Your task to perform on an android device: see creations saved in the google photos Image 0: 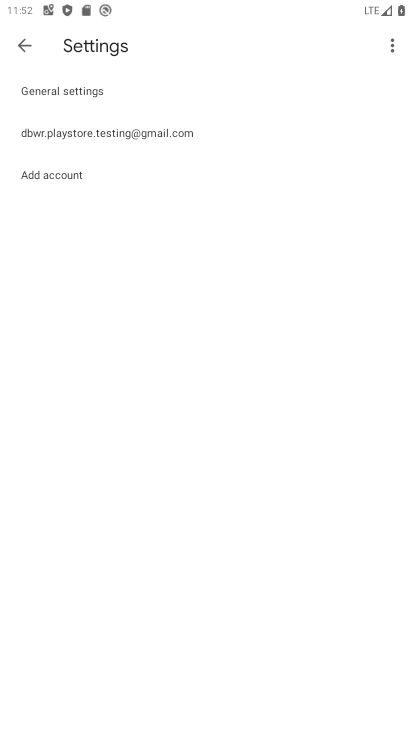
Step 0: press home button
Your task to perform on an android device: see creations saved in the google photos Image 1: 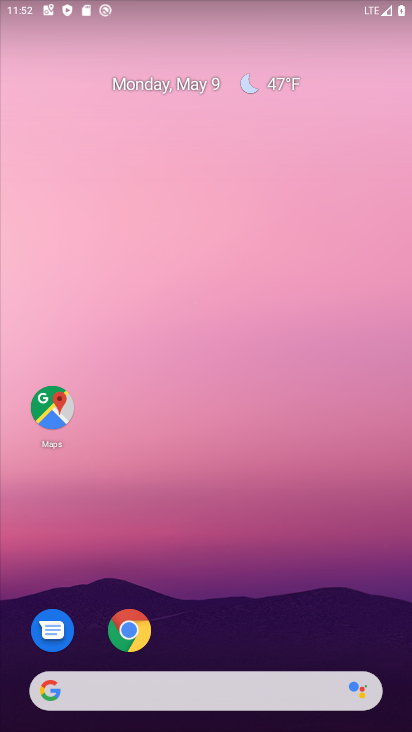
Step 1: drag from (150, 690) to (328, 110)
Your task to perform on an android device: see creations saved in the google photos Image 2: 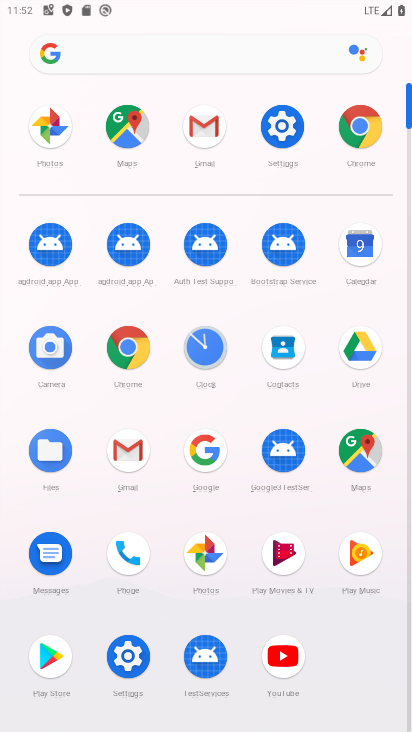
Step 2: click (208, 563)
Your task to perform on an android device: see creations saved in the google photos Image 3: 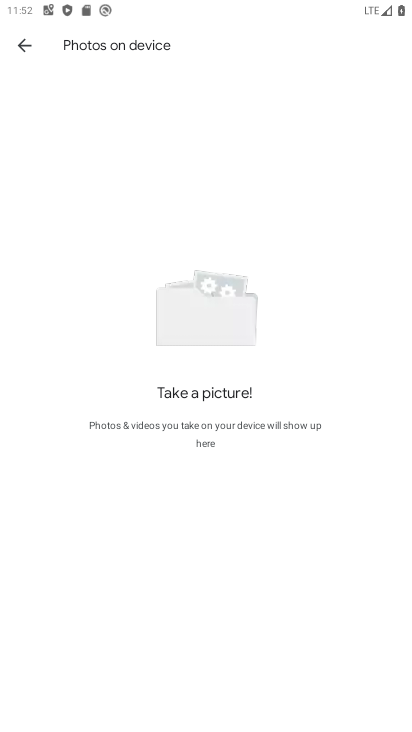
Step 3: click (23, 44)
Your task to perform on an android device: see creations saved in the google photos Image 4: 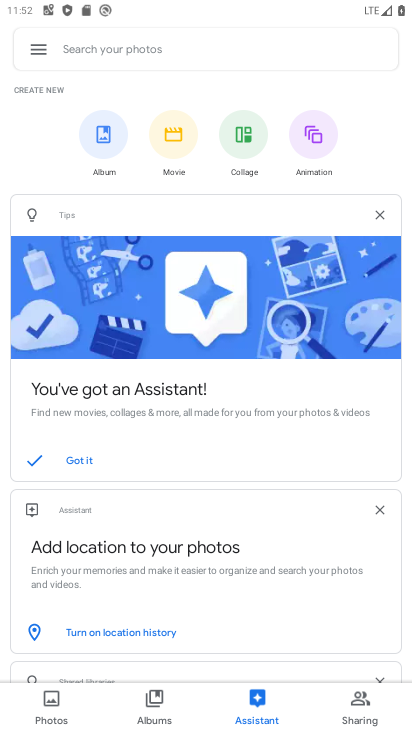
Step 4: click (159, 708)
Your task to perform on an android device: see creations saved in the google photos Image 5: 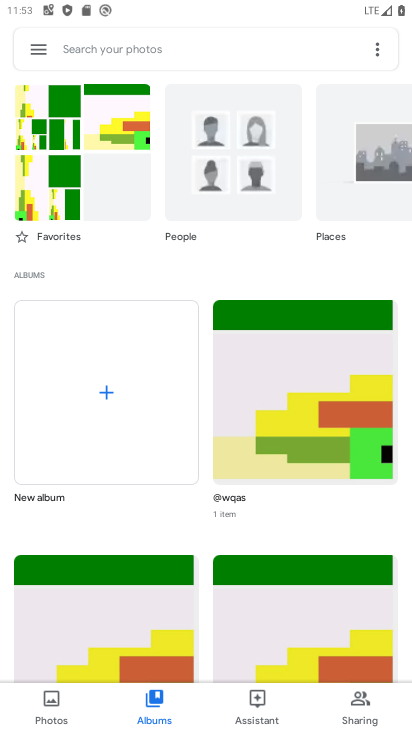
Step 5: click (175, 49)
Your task to perform on an android device: see creations saved in the google photos Image 6: 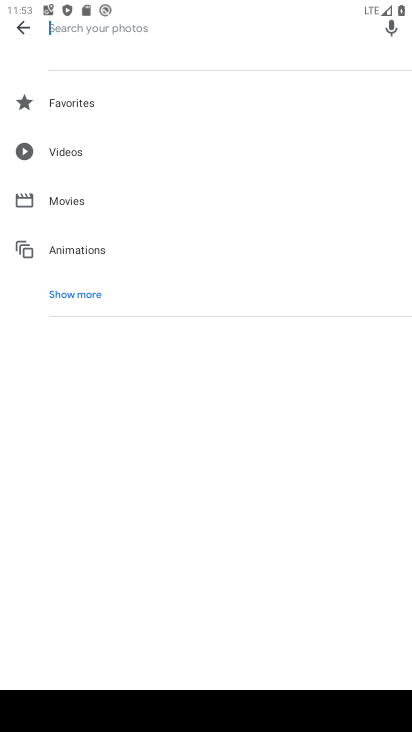
Step 6: click (76, 293)
Your task to perform on an android device: see creations saved in the google photos Image 7: 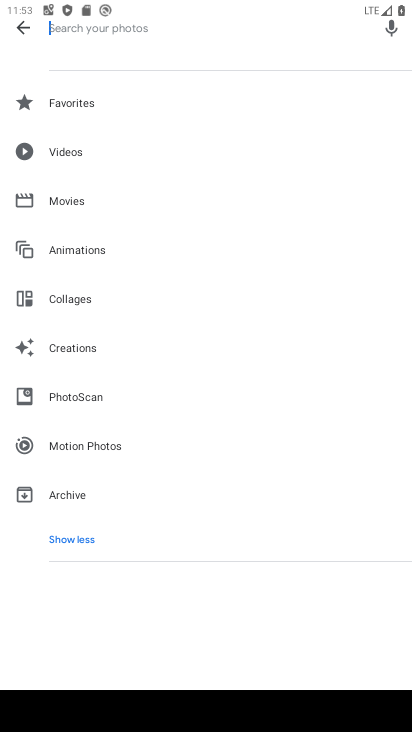
Step 7: click (88, 349)
Your task to perform on an android device: see creations saved in the google photos Image 8: 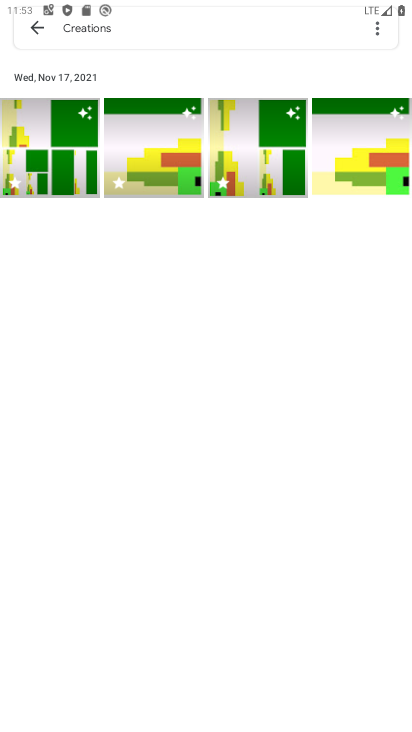
Step 8: task complete